Your task to perform on an android device: Go to Reddit.com Image 0: 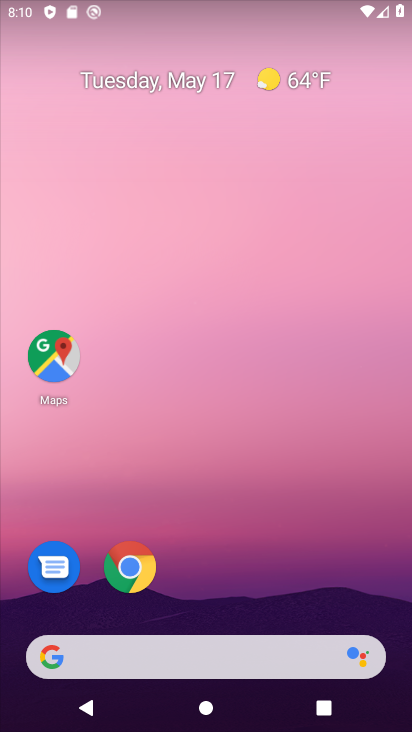
Step 0: drag from (356, 508) to (254, 112)
Your task to perform on an android device: Go to Reddit.com Image 1: 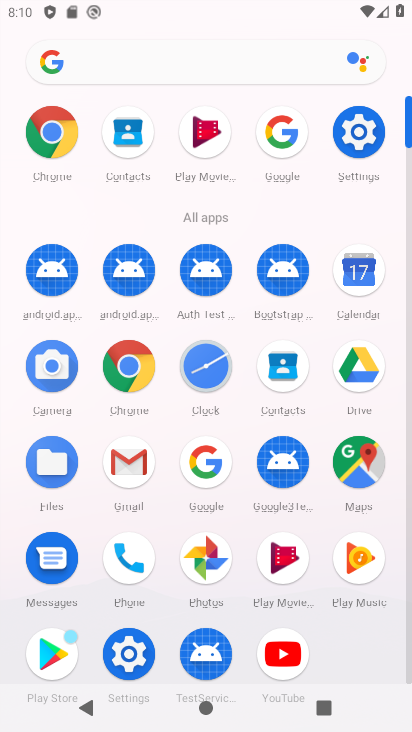
Step 1: click (282, 151)
Your task to perform on an android device: Go to Reddit.com Image 2: 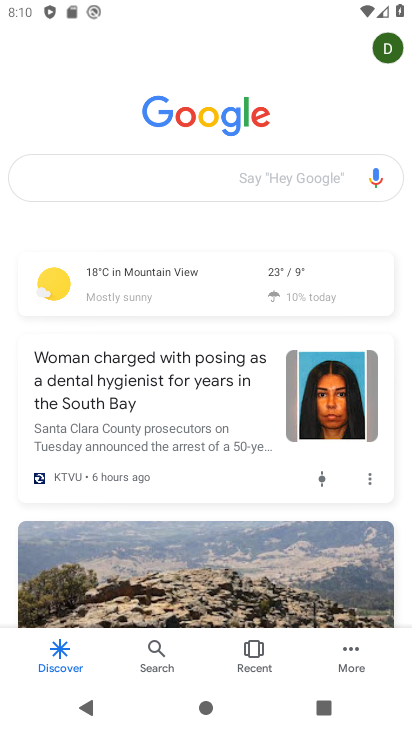
Step 2: click (162, 185)
Your task to perform on an android device: Go to Reddit.com Image 3: 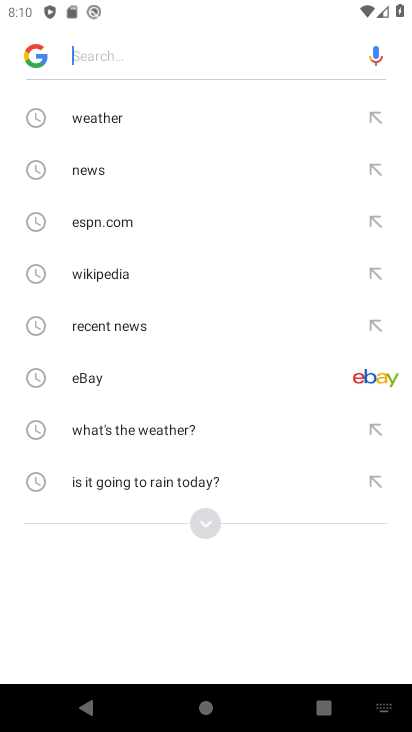
Step 3: click (203, 518)
Your task to perform on an android device: Go to Reddit.com Image 4: 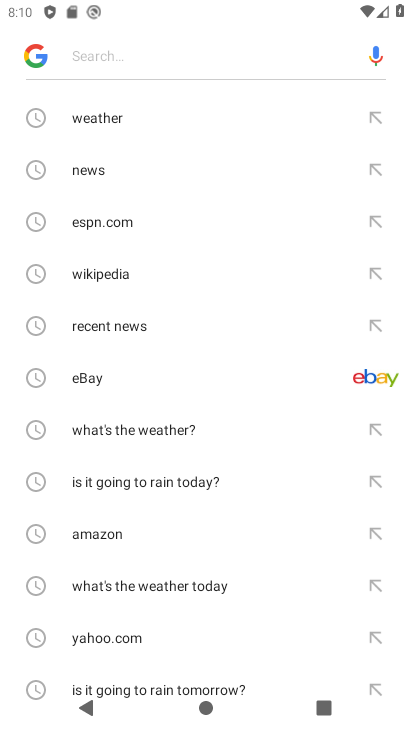
Step 4: drag from (143, 529) to (151, 226)
Your task to perform on an android device: Go to Reddit.com Image 5: 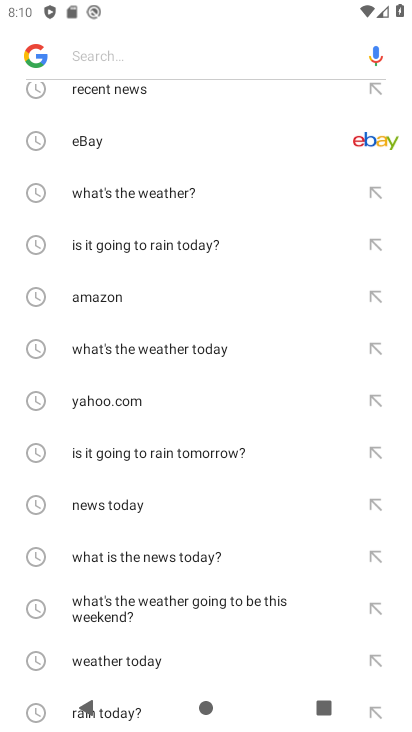
Step 5: drag from (199, 600) to (187, 128)
Your task to perform on an android device: Go to Reddit.com Image 6: 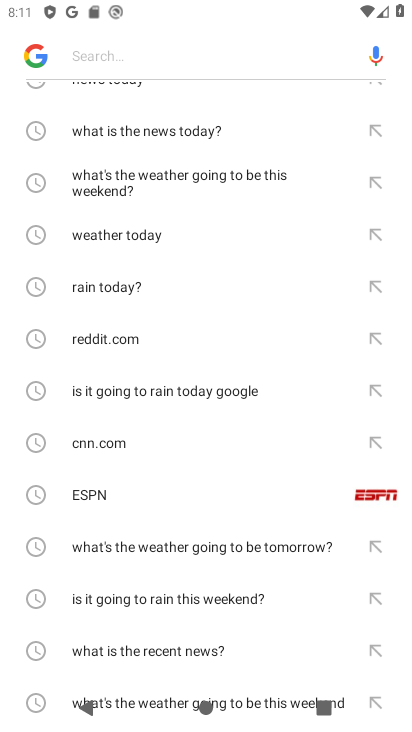
Step 6: drag from (201, 547) to (151, 194)
Your task to perform on an android device: Go to Reddit.com Image 7: 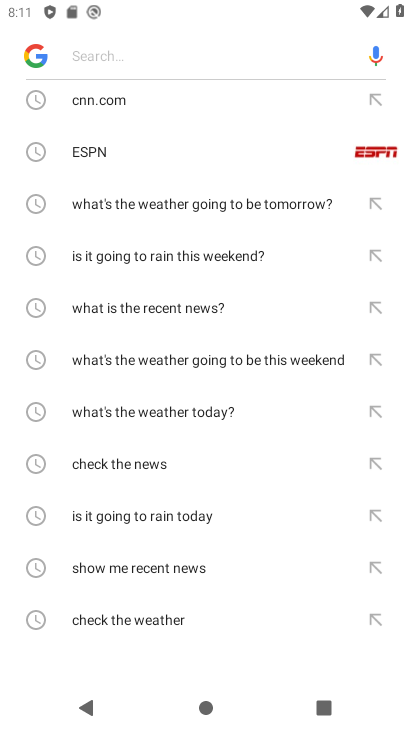
Step 7: click (138, 49)
Your task to perform on an android device: Go to Reddit.com Image 8: 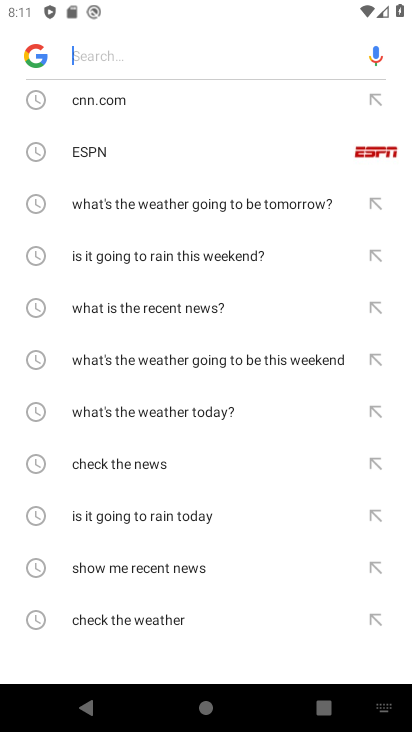
Step 8: type "reddit.com"
Your task to perform on an android device: Go to Reddit.com Image 9: 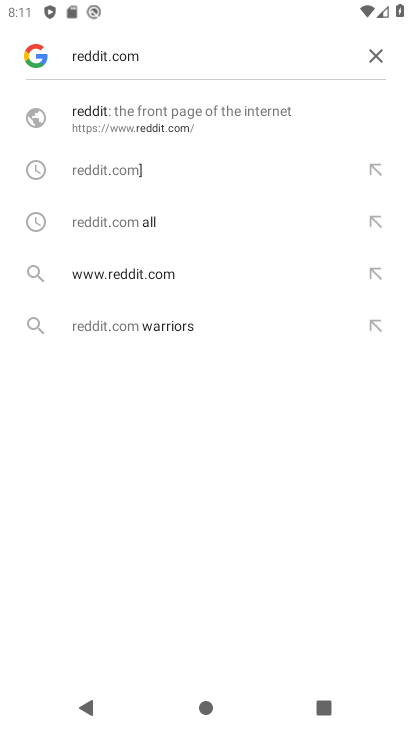
Step 9: click (265, 133)
Your task to perform on an android device: Go to Reddit.com Image 10: 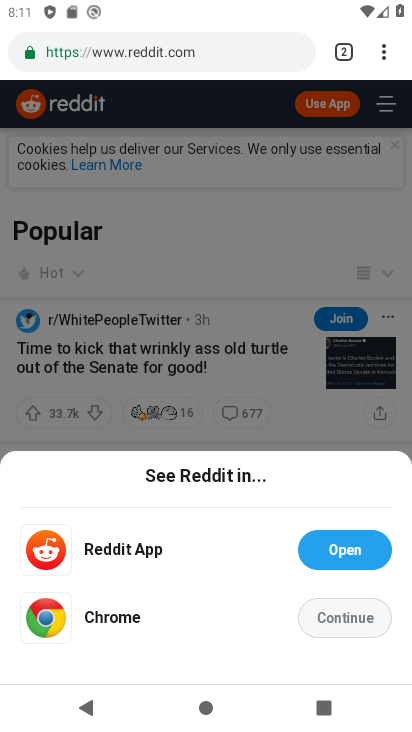
Step 10: task complete